Your task to perform on an android device: clear history in the chrome app Image 0: 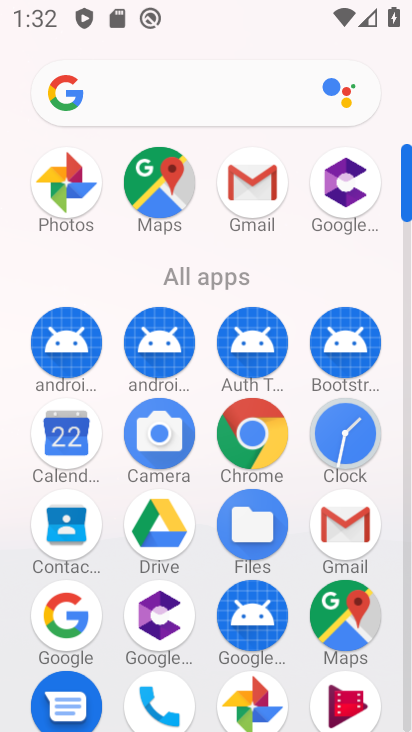
Step 0: press home button
Your task to perform on an android device: clear history in the chrome app Image 1: 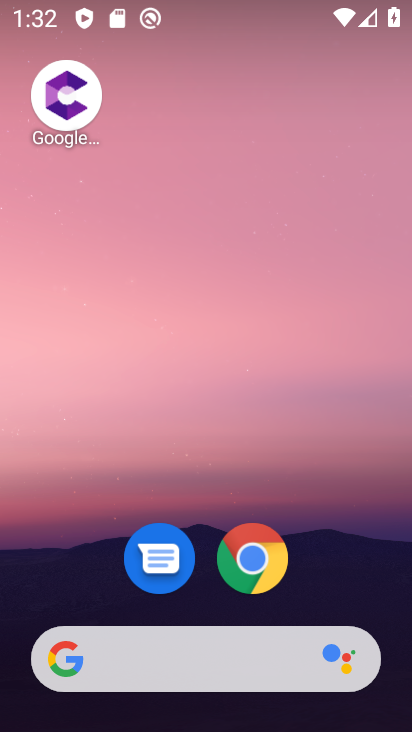
Step 1: click (278, 572)
Your task to perform on an android device: clear history in the chrome app Image 2: 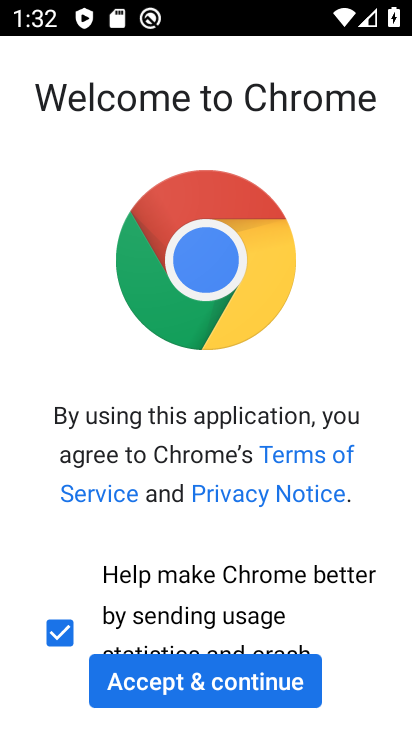
Step 2: click (164, 684)
Your task to perform on an android device: clear history in the chrome app Image 3: 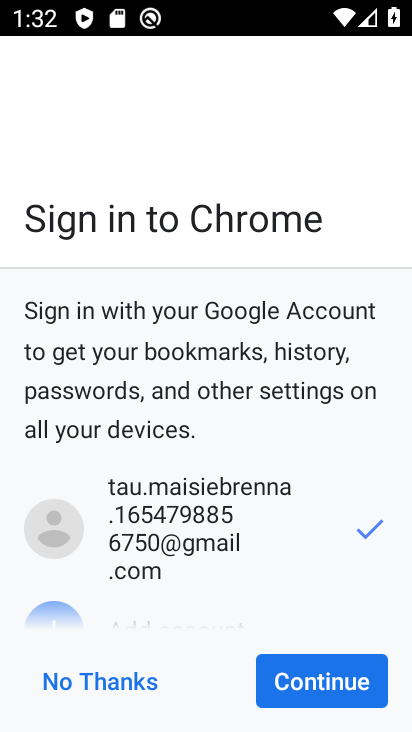
Step 3: click (294, 691)
Your task to perform on an android device: clear history in the chrome app Image 4: 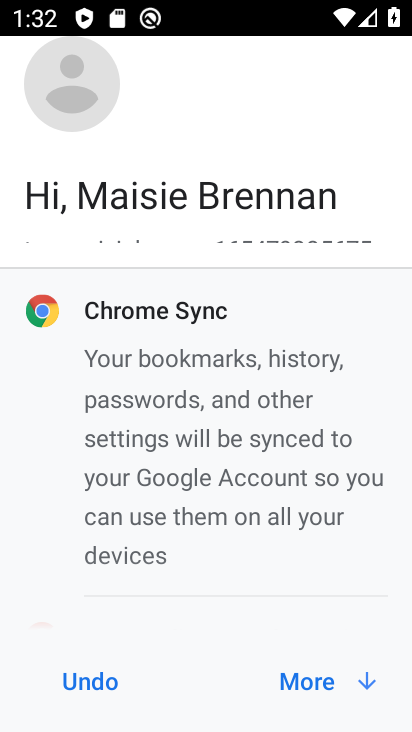
Step 4: click (294, 691)
Your task to perform on an android device: clear history in the chrome app Image 5: 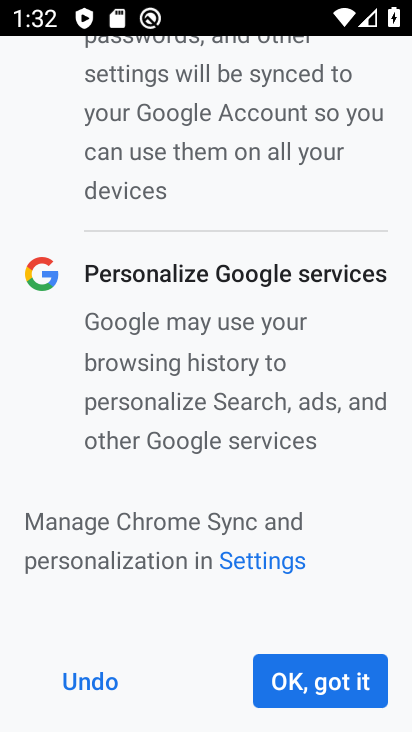
Step 5: click (294, 691)
Your task to perform on an android device: clear history in the chrome app Image 6: 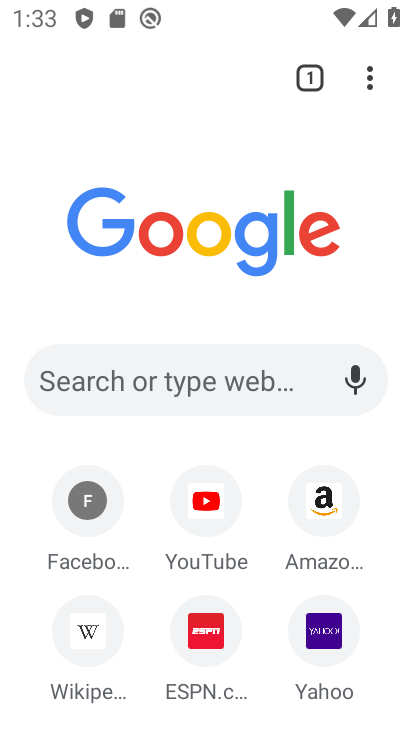
Step 6: click (372, 79)
Your task to perform on an android device: clear history in the chrome app Image 7: 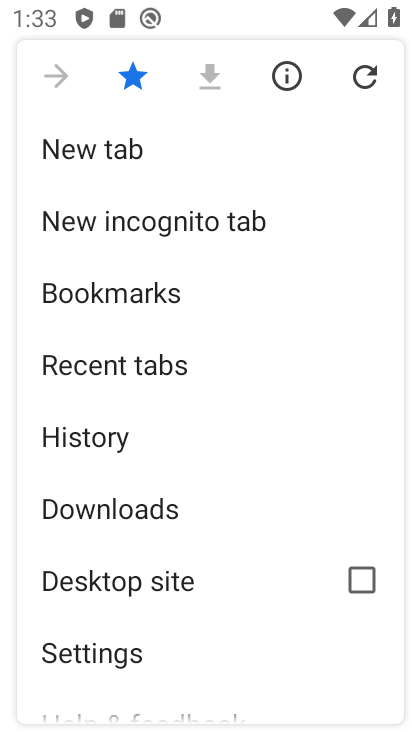
Step 7: click (153, 423)
Your task to perform on an android device: clear history in the chrome app Image 8: 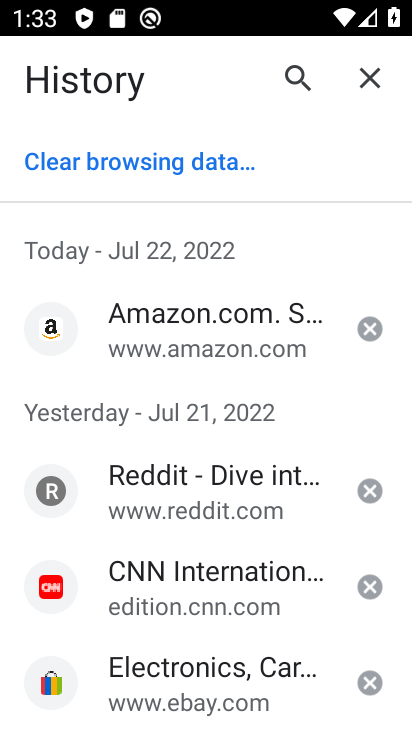
Step 8: click (90, 179)
Your task to perform on an android device: clear history in the chrome app Image 9: 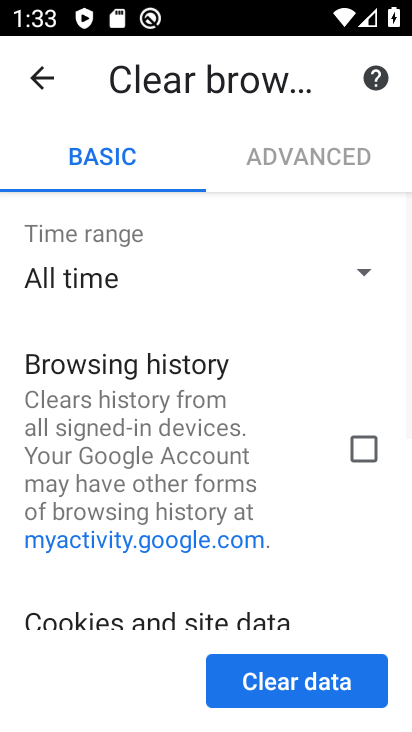
Step 9: click (366, 437)
Your task to perform on an android device: clear history in the chrome app Image 10: 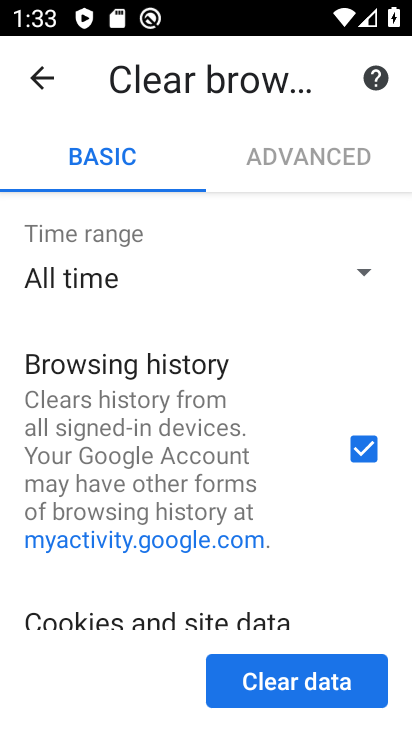
Step 10: click (352, 666)
Your task to perform on an android device: clear history in the chrome app Image 11: 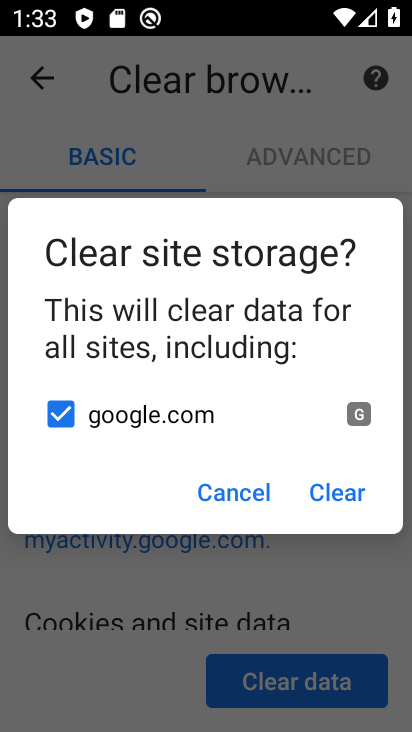
Step 11: click (335, 496)
Your task to perform on an android device: clear history in the chrome app Image 12: 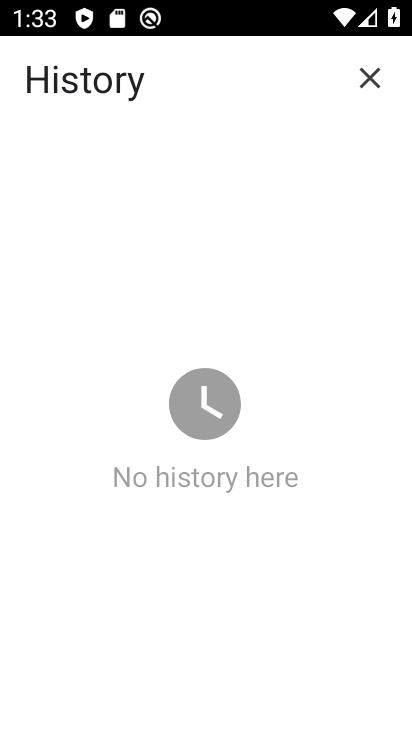
Step 12: task complete